Your task to perform on an android device: What's the weather going to be this weekend? Image 0: 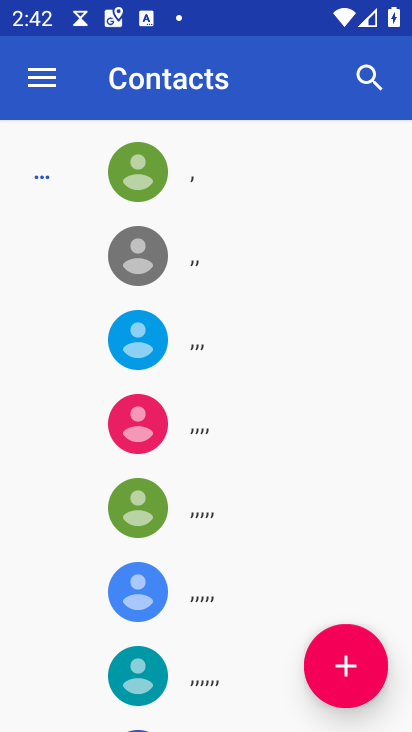
Step 0: press home button
Your task to perform on an android device: What's the weather going to be this weekend? Image 1: 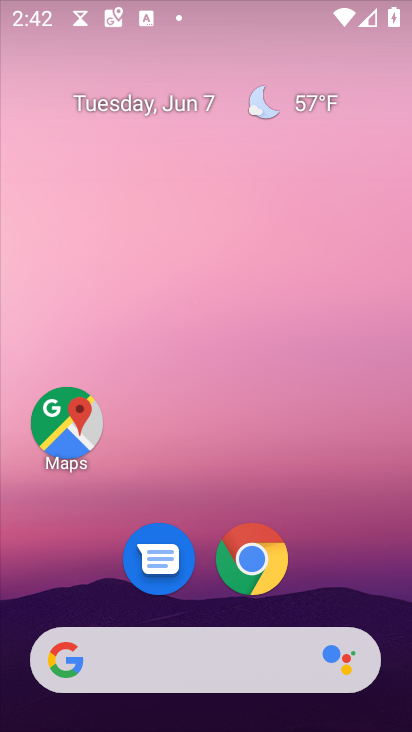
Step 1: click (189, 678)
Your task to perform on an android device: What's the weather going to be this weekend? Image 2: 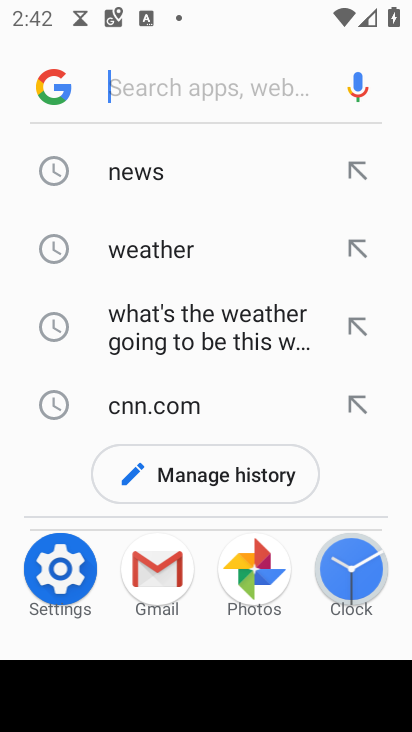
Step 2: click (151, 256)
Your task to perform on an android device: What's the weather going to be this weekend? Image 3: 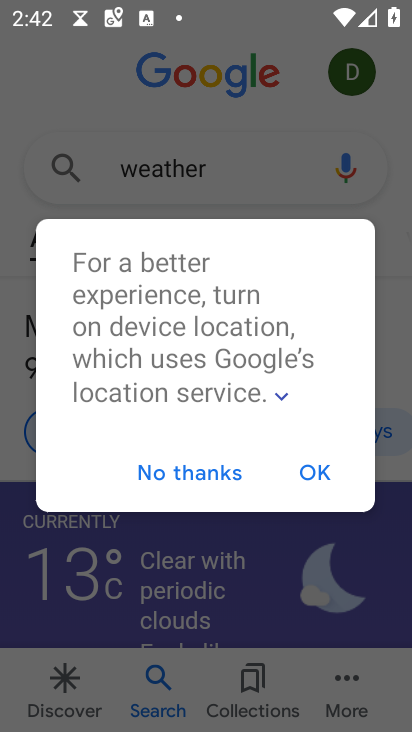
Step 3: click (198, 468)
Your task to perform on an android device: What's the weather going to be this weekend? Image 4: 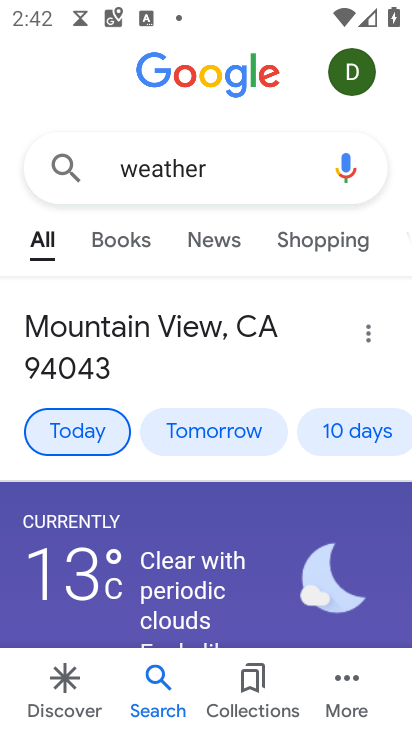
Step 4: task complete